Your task to perform on an android device: toggle airplane mode Image 0: 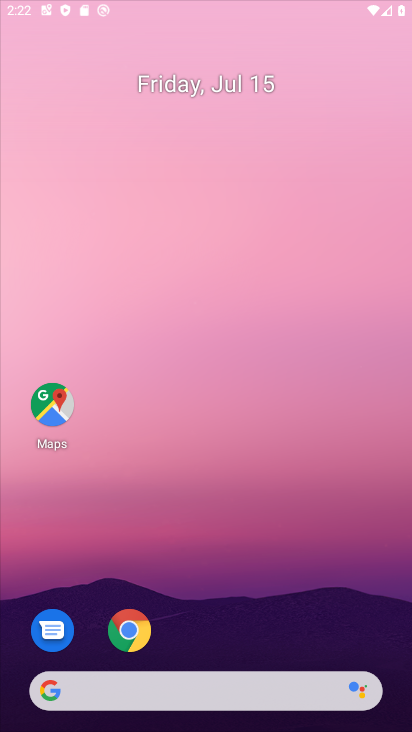
Step 0: press home button
Your task to perform on an android device: toggle airplane mode Image 1: 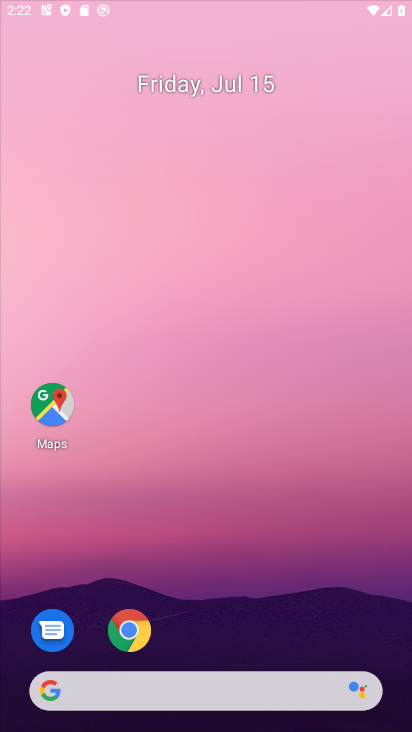
Step 1: click (180, 59)
Your task to perform on an android device: toggle airplane mode Image 2: 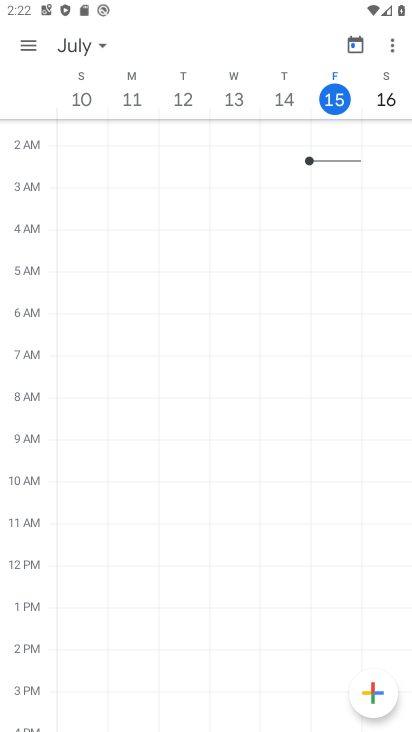
Step 2: press home button
Your task to perform on an android device: toggle airplane mode Image 3: 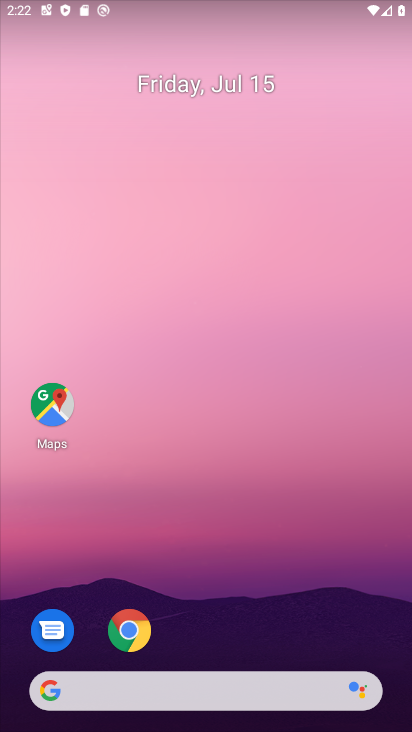
Step 3: drag from (273, 643) to (284, 92)
Your task to perform on an android device: toggle airplane mode Image 4: 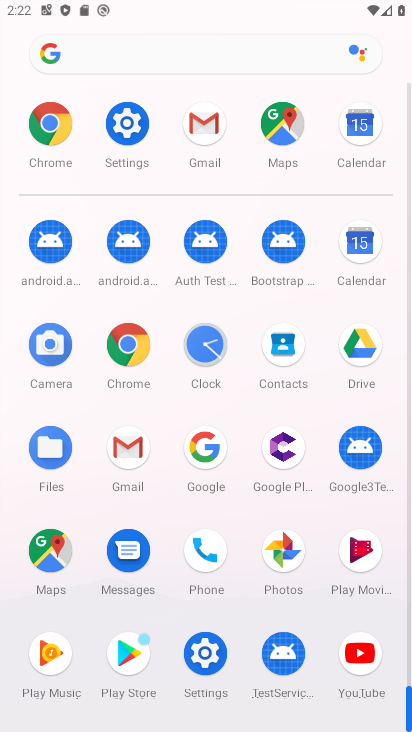
Step 4: click (125, 138)
Your task to perform on an android device: toggle airplane mode Image 5: 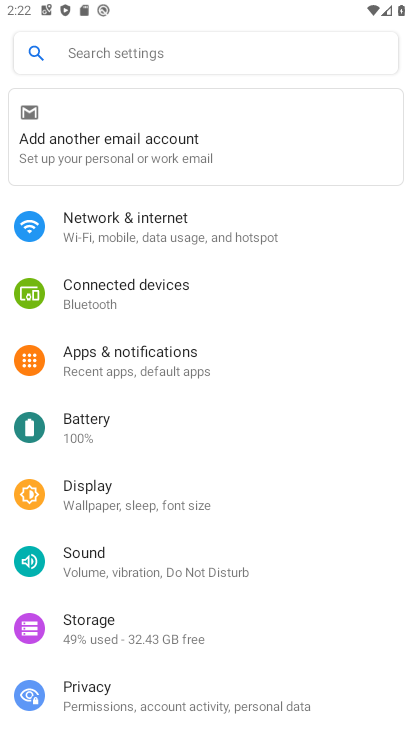
Step 5: click (179, 232)
Your task to perform on an android device: toggle airplane mode Image 6: 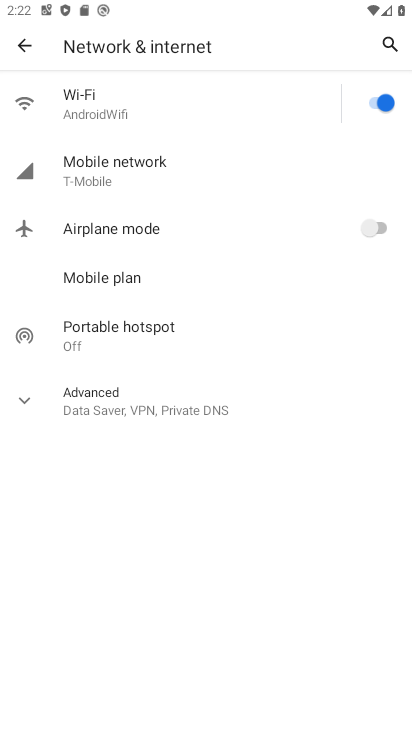
Step 6: click (375, 223)
Your task to perform on an android device: toggle airplane mode Image 7: 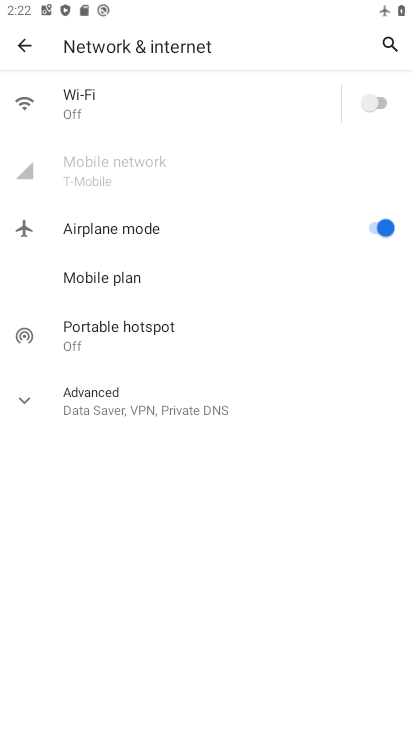
Step 7: task complete